Your task to perform on an android device: Go to settings Image 0: 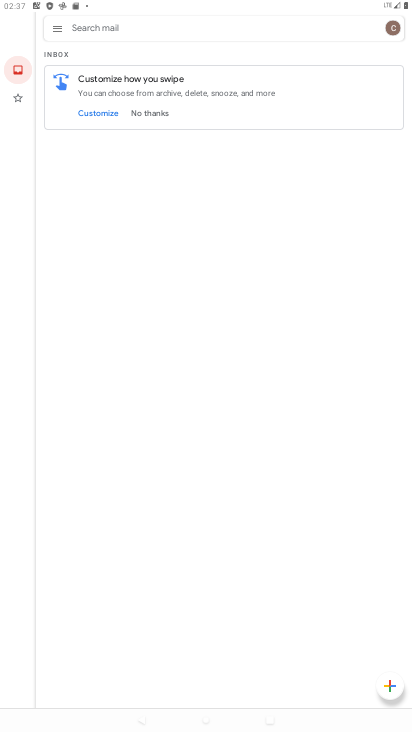
Step 0: press home button
Your task to perform on an android device: Go to settings Image 1: 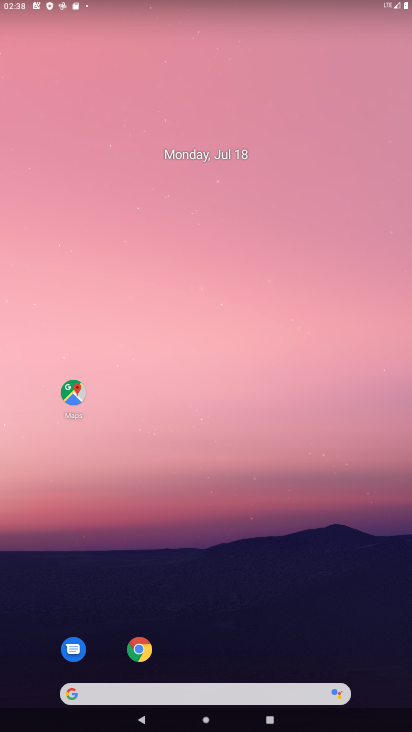
Step 1: drag from (167, 706) to (302, 0)
Your task to perform on an android device: Go to settings Image 2: 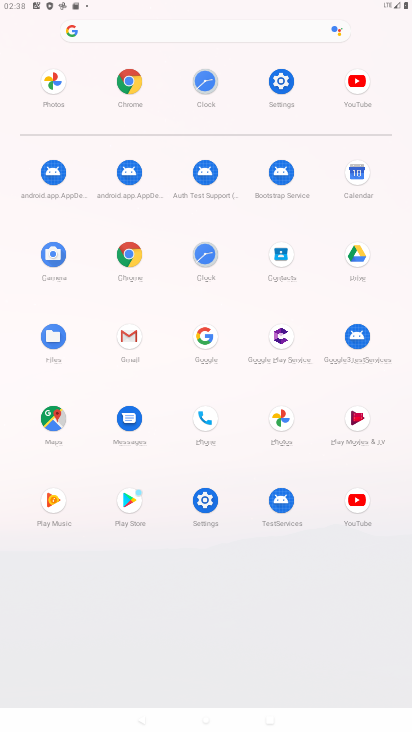
Step 2: click (277, 84)
Your task to perform on an android device: Go to settings Image 3: 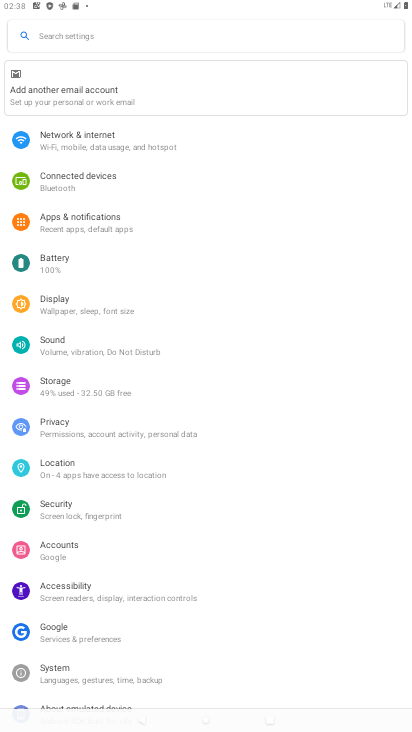
Step 3: task complete